Your task to perform on an android device: Open network settings Image 0: 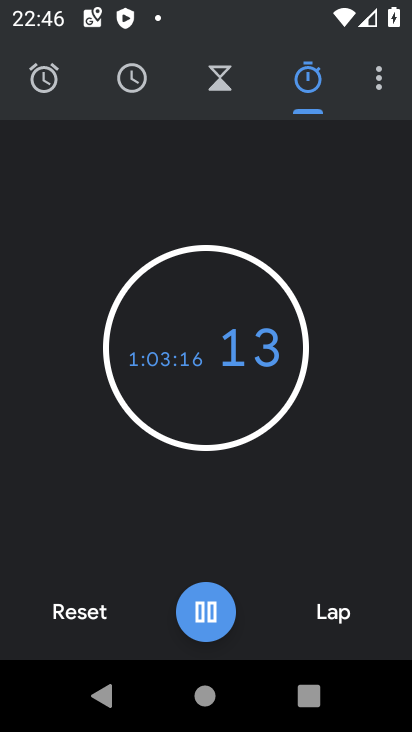
Step 0: press home button
Your task to perform on an android device: Open network settings Image 1: 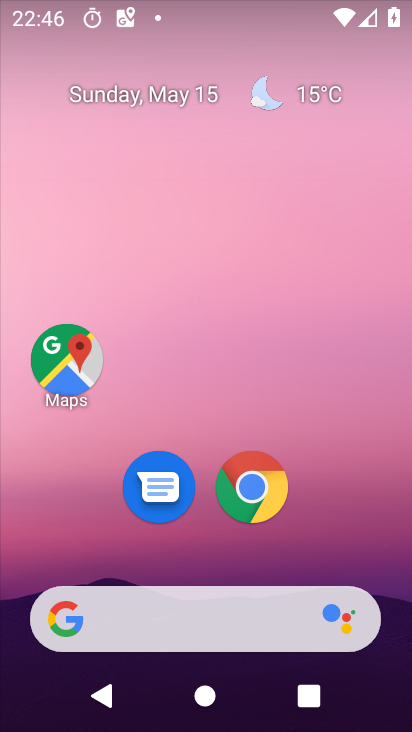
Step 1: drag from (305, 600) to (318, 6)
Your task to perform on an android device: Open network settings Image 2: 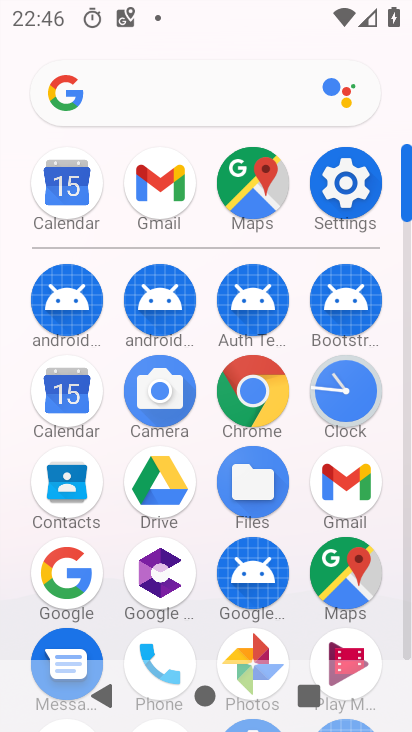
Step 2: click (332, 198)
Your task to perform on an android device: Open network settings Image 3: 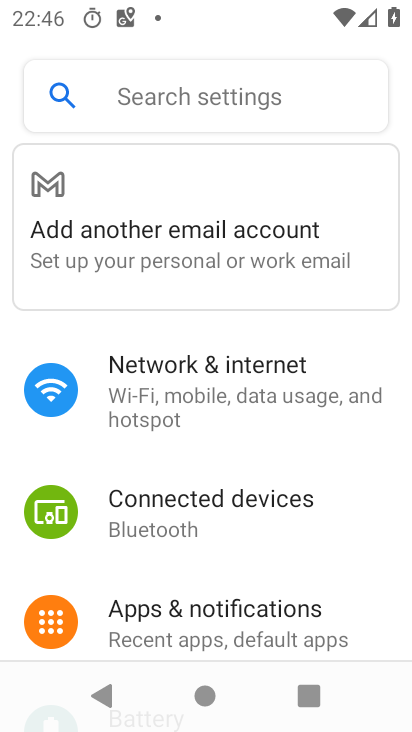
Step 3: click (287, 381)
Your task to perform on an android device: Open network settings Image 4: 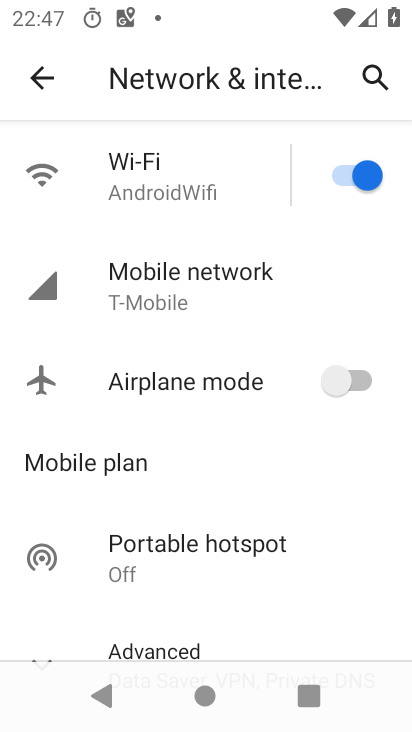
Step 4: click (201, 275)
Your task to perform on an android device: Open network settings Image 5: 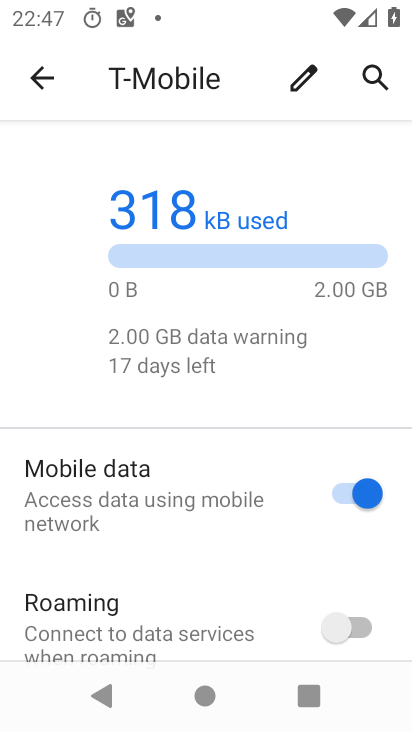
Step 5: task complete